Your task to perform on an android device: create a new album in the google photos Image 0: 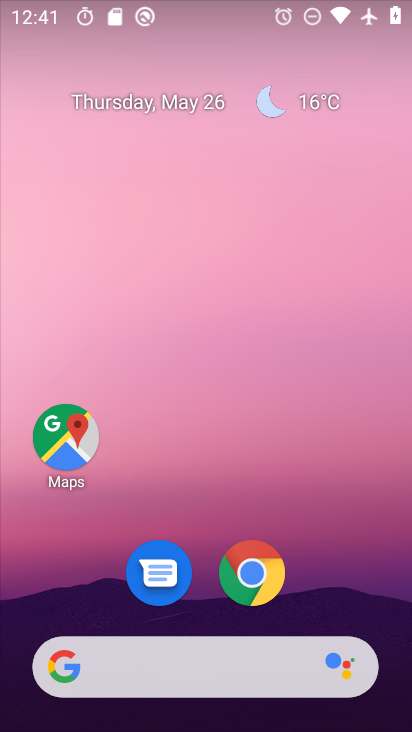
Step 0: drag from (345, 584) to (236, 0)
Your task to perform on an android device: create a new album in the google photos Image 1: 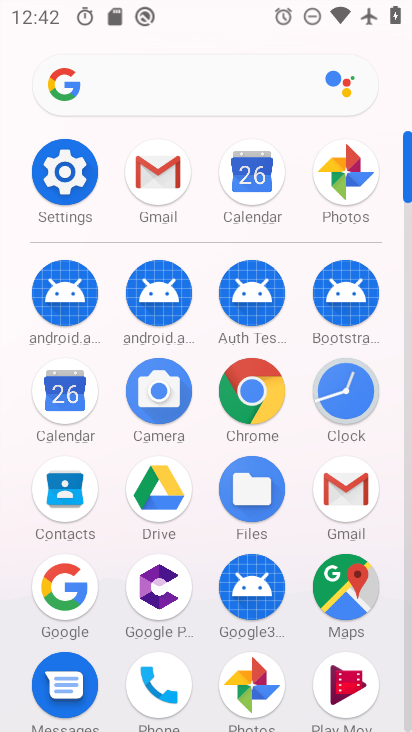
Step 1: click (342, 190)
Your task to perform on an android device: create a new album in the google photos Image 2: 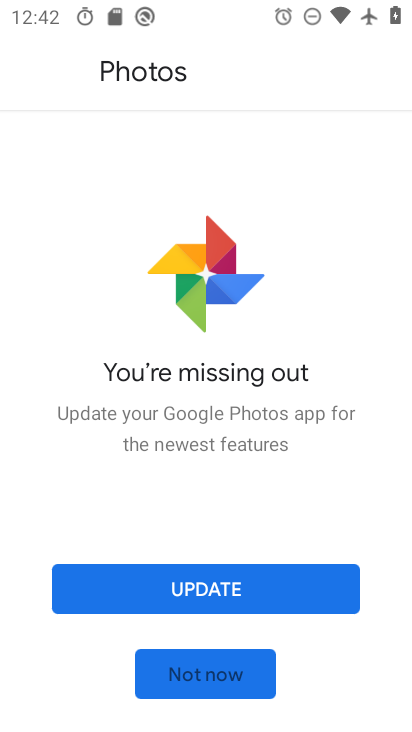
Step 2: click (186, 677)
Your task to perform on an android device: create a new album in the google photos Image 3: 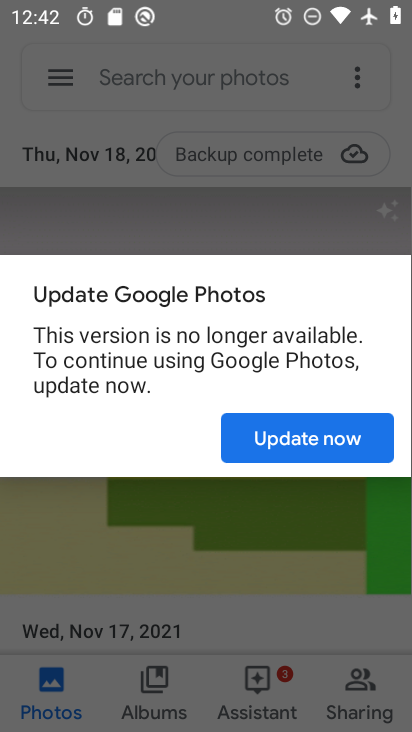
Step 3: click (255, 437)
Your task to perform on an android device: create a new album in the google photos Image 4: 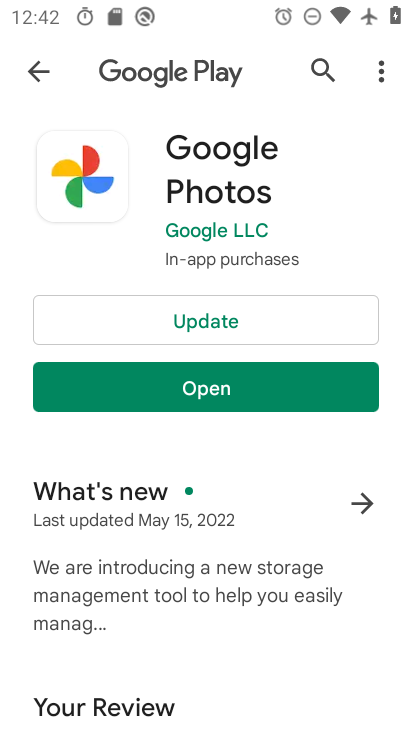
Step 4: click (208, 394)
Your task to perform on an android device: create a new album in the google photos Image 5: 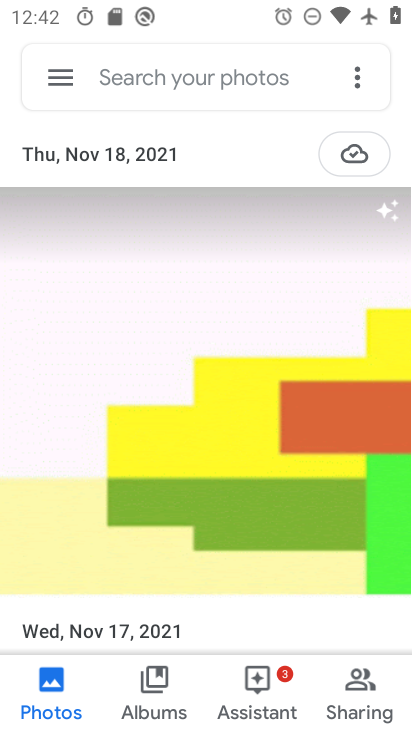
Step 5: drag from (169, 501) to (171, 130)
Your task to perform on an android device: create a new album in the google photos Image 6: 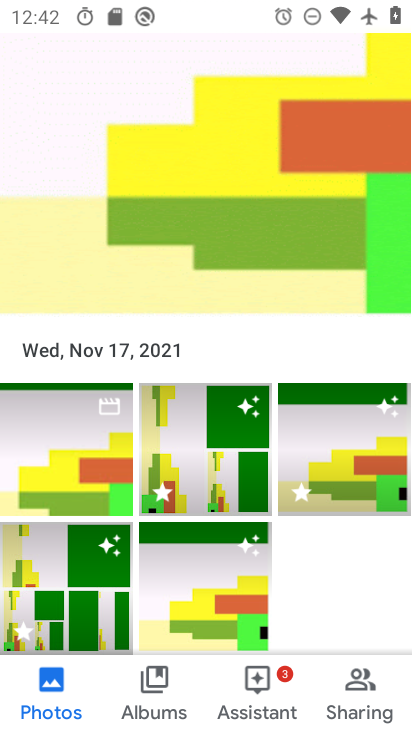
Step 6: click (199, 436)
Your task to perform on an android device: create a new album in the google photos Image 7: 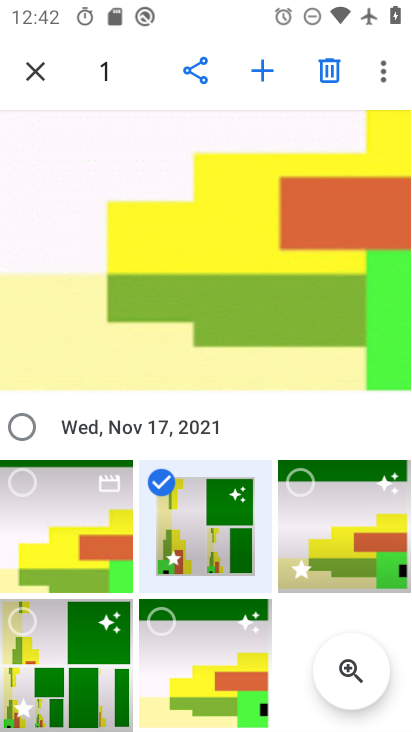
Step 7: click (331, 544)
Your task to perform on an android device: create a new album in the google photos Image 8: 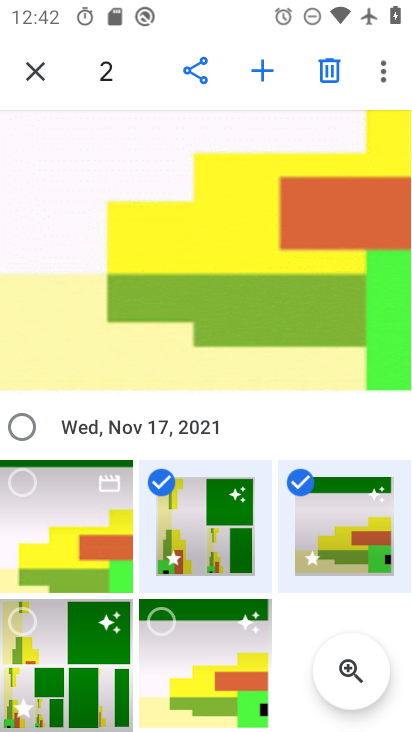
Step 8: click (260, 76)
Your task to perform on an android device: create a new album in the google photos Image 9: 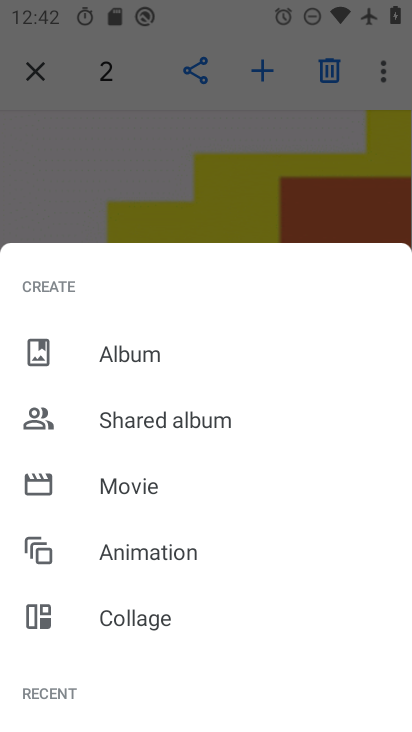
Step 9: click (120, 358)
Your task to perform on an android device: create a new album in the google photos Image 10: 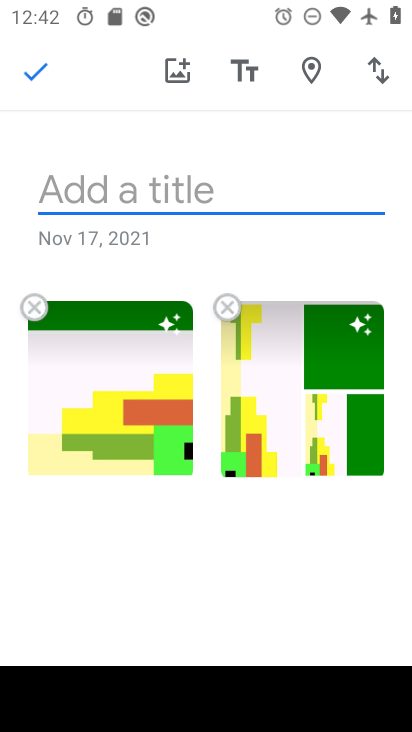
Step 10: click (114, 192)
Your task to perform on an android device: create a new album in the google photos Image 11: 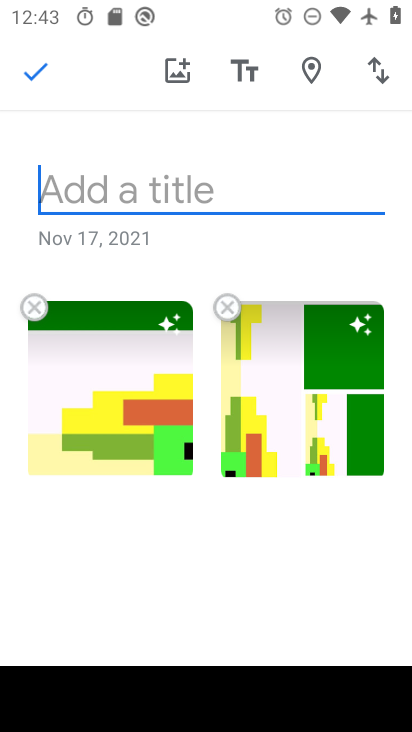
Step 11: click (189, 196)
Your task to perform on an android device: create a new album in the google photos Image 12: 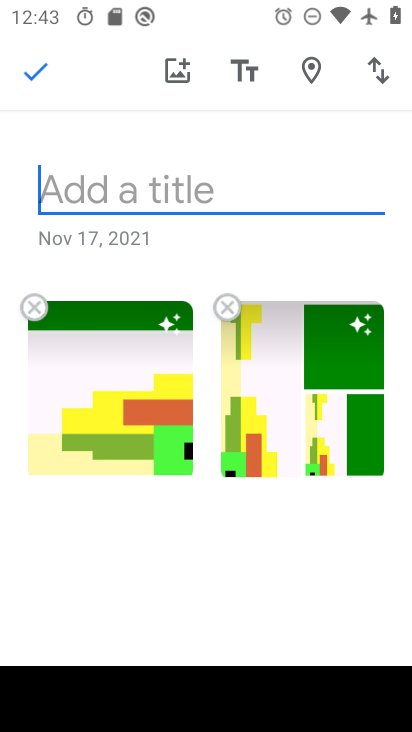
Step 12: type "nitu"
Your task to perform on an android device: create a new album in the google photos Image 13: 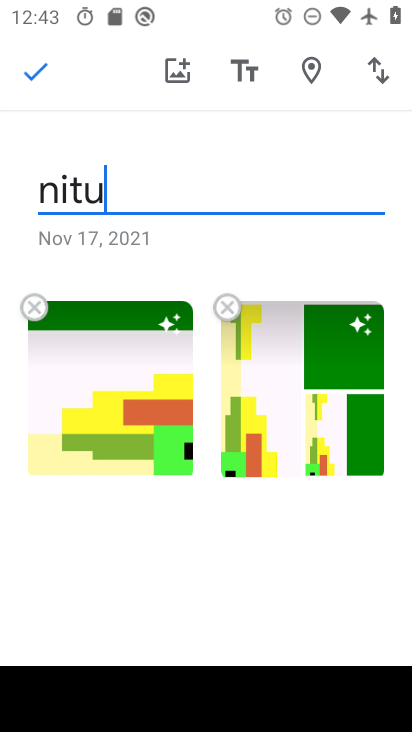
Step 13: click (25, 79)
Your task to perform on an android device: create a new album in the google photos Image 14: 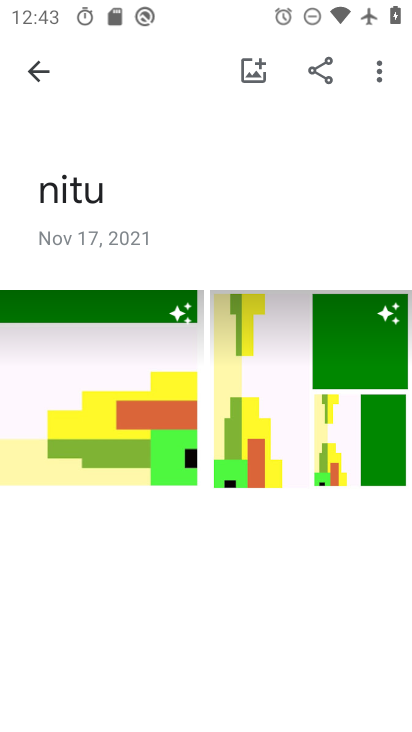
Step 14: task complete